Your task to perform on an android device: Show me productivity apps on the Play Store Image 0: 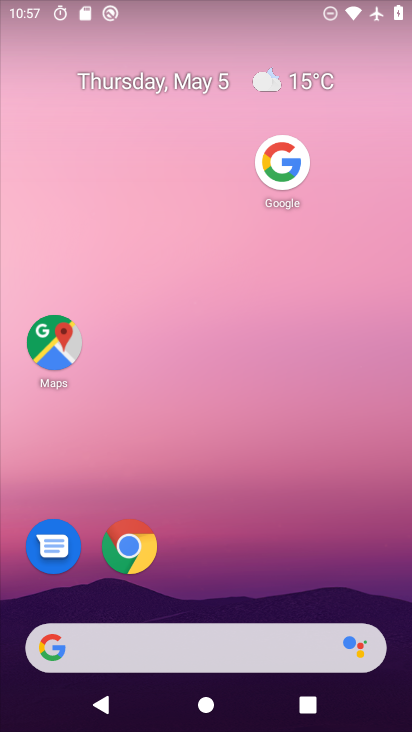
Step 0: drag from (131, 655) to (268, 151)
Your task to perform on an android device: Show me productivity apps on the Play Store Image 1: 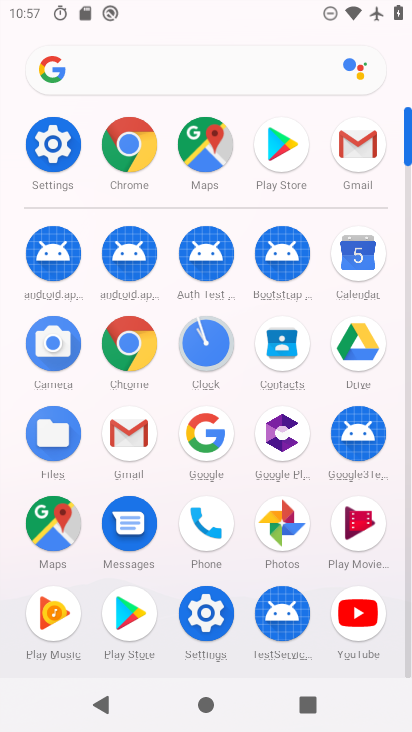
Step 1: click (130, 614)
Your task to perform on an android device: Show me productivity apps on the Play Store Image 2: 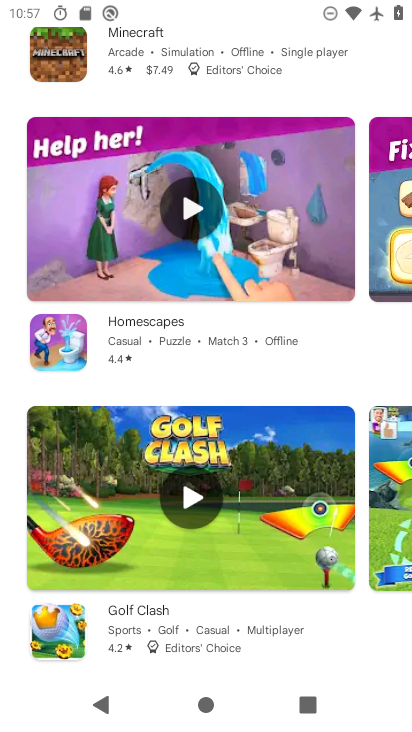
Step 2: drag from (252, 235) to (173, 624)
Your task to perform on an android device: Show me productivity apps on the Play Store Image 3: 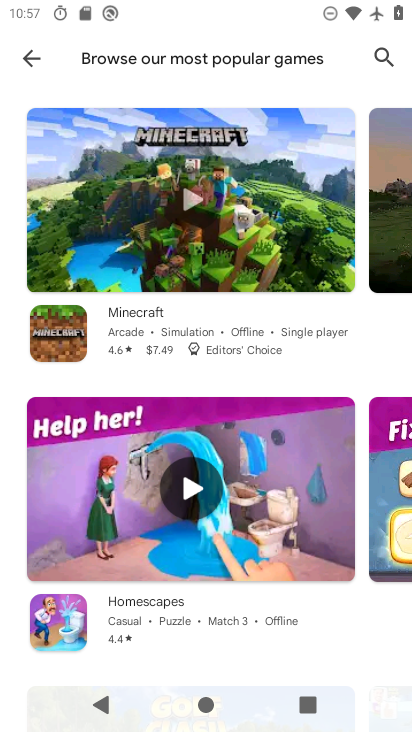
Step 3: click (30, 53)
Your task to perform on an android device: Show me productivity apps on the Play Store Image 4: 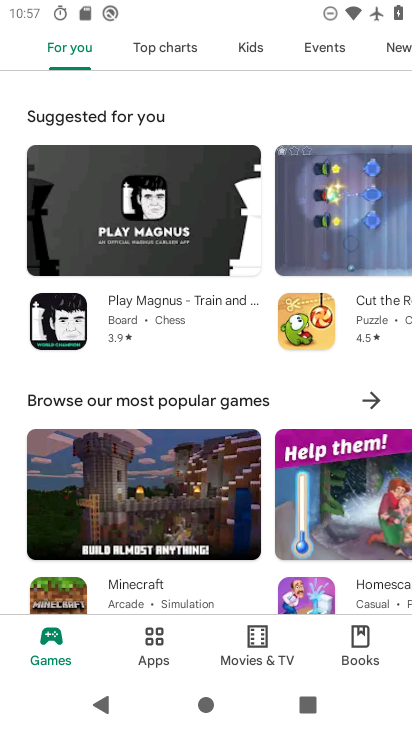
Step 4: click (154, 646)
Your task to perform on an android device: Show me productivity apps on the Play Store Image 5: 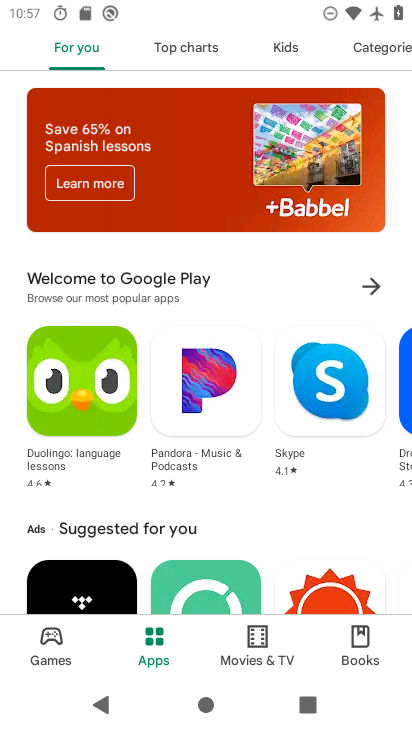
Step 5: click (380, 50)
Your task to perform on an android device: Show me productivity apps on the Play Store Image 6: 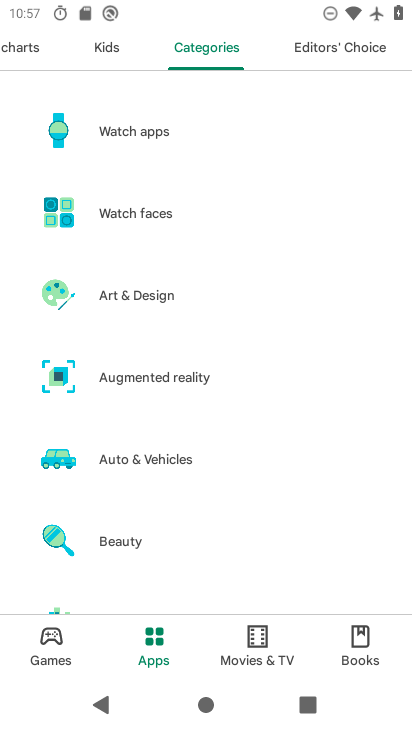
Step 6: drag from (258, 519) to (359, 127)
Your task to perform on an android device: Show me productivity apps on the Play Store Image 7: 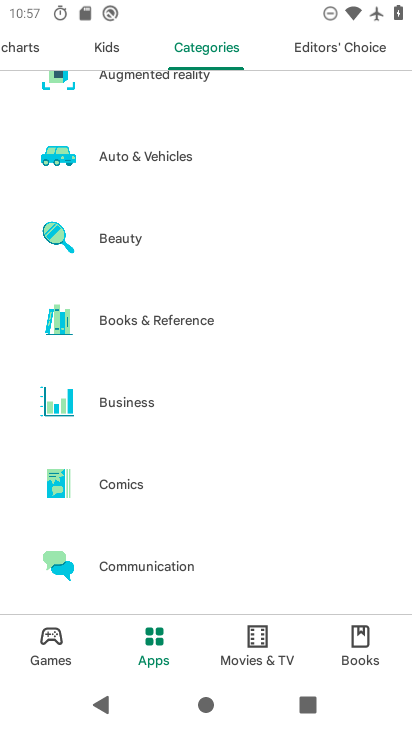
Step 7: drag from (200, 570) to (330, 52)
Your task to perform on an android device: Show me productivity apps on the Play Store Image 8: 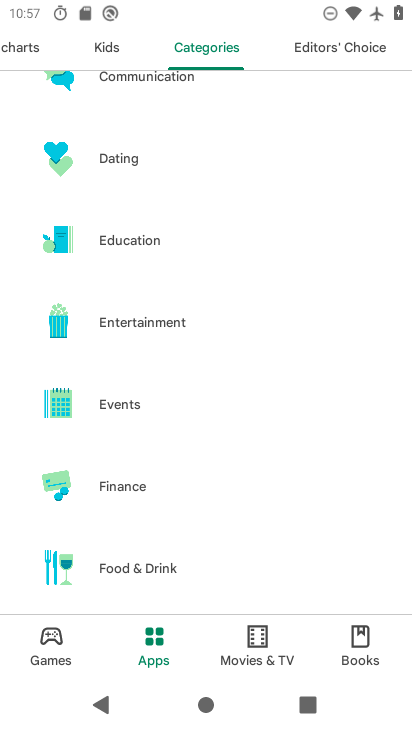
Step 8: drag from (246, 558) to (364, 14)
Your task to perform on an android device: Show me productivity apps on the Play Store Image 9: 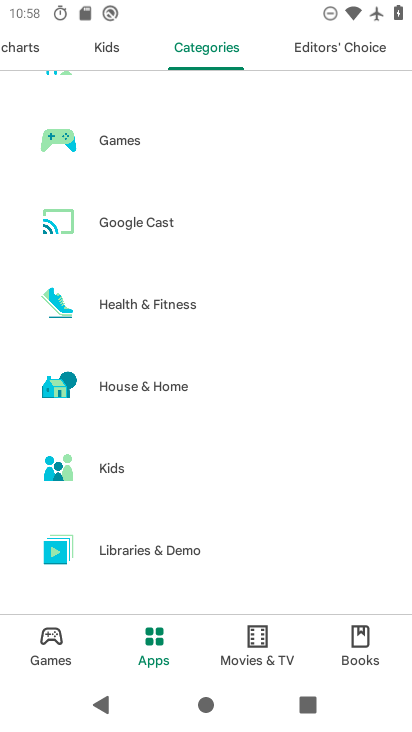
Step 9: drag from (253, 540) to (348, 22)
Your task to perform on an android device: Show me productivity apps on the Play Store Image 10: 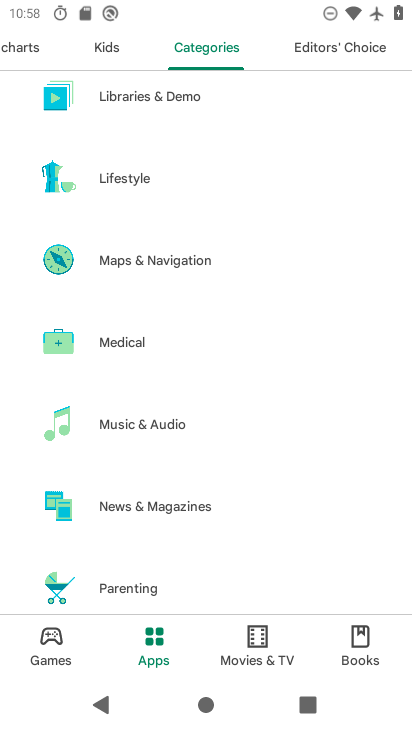
Step 10: drag from (252, 539) to (341, 78)
Your task to perform on an android device: Show me productivity apps on the Play Store Image 11: 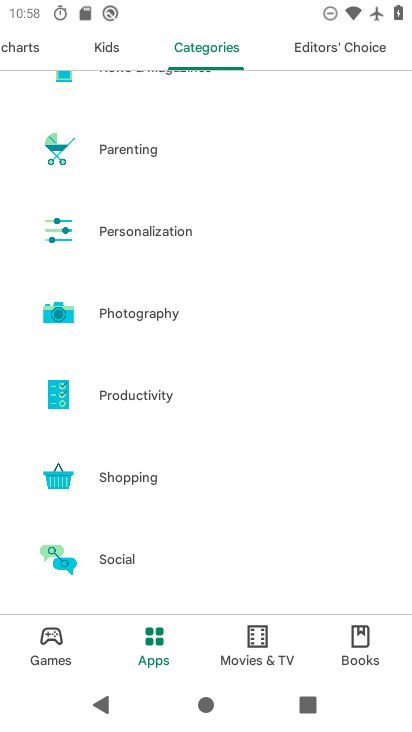
Step 11: click (161, 397)
Your task to perform on an android device: Show me productivity apps on the Play Store Image 12: 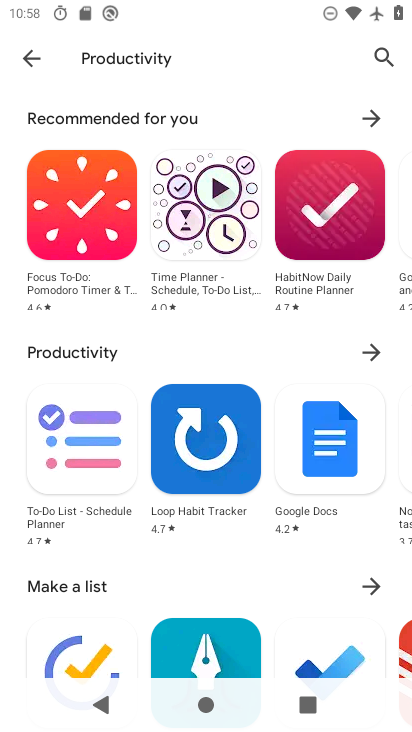
Step 12: task complete